Your task to perform on an android device: open app "Microsoft Authenticator" (install if not already installed) and go to login screen Image 0: 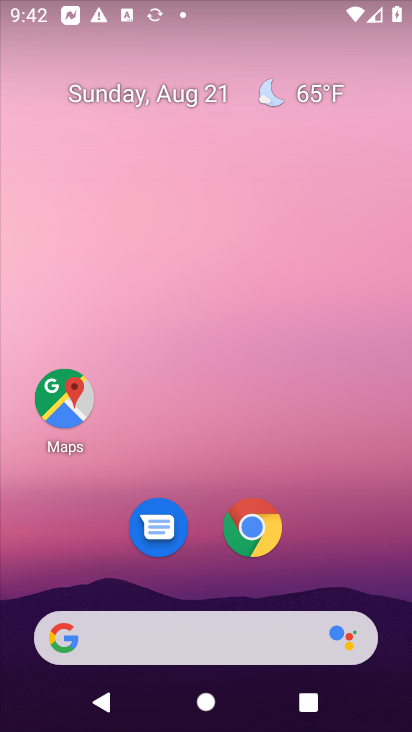
Step 0: drag from (196, 578) to (160, 0)
Your task to perform on an android device: open app "Microsoft Authenticator" (install if not already installed) and go to login screen Image 1: 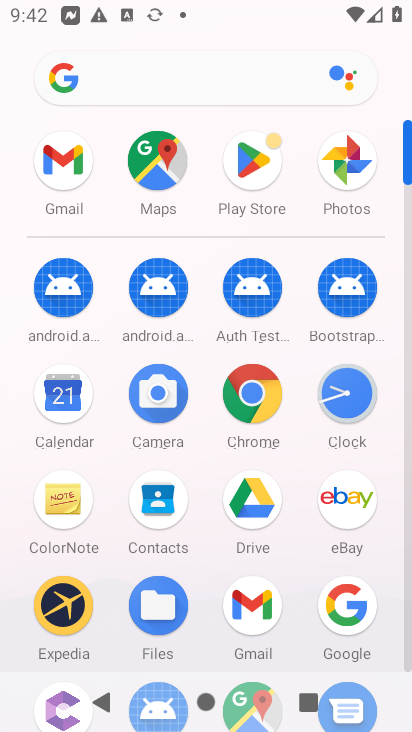
Step 1: click (265, 180)
Your task to perform on an android device: open app "Microsoft Authenticator" (install if not already installed) and go to login screen Image 2: 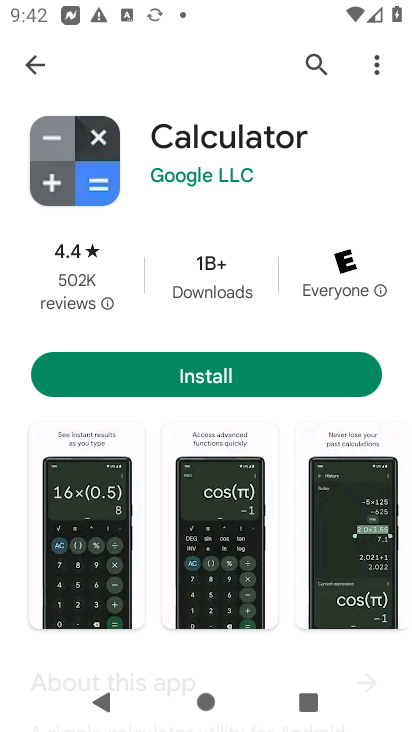
Step 2: click (27, 61)
Your task to perform on an android device: open app "Microsoft Authenticator" (install if not already installed) and go to login screen Image 3: 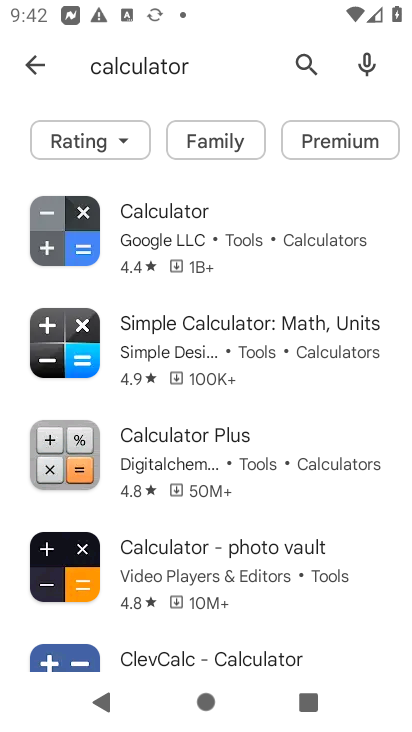
Step 3: click (183, 57)
Your task to perform on an android device: open app "Microsoft Authenticator" (install if not already installed) and go to login screen Image 4: 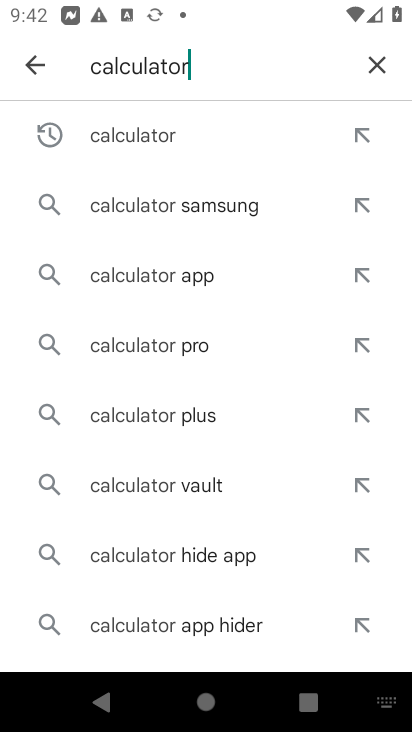
Step 4: click (380, 62)
Your task to perform on an android device: open app "Microsoft Authenticator" (install if not already installed) and go to login screen Image 5: 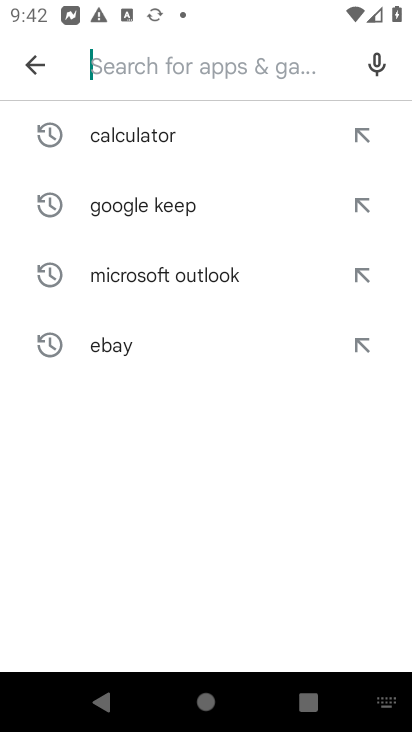
Step 5: type "microsoft Authenticator"
Your task to perform on an android device: open app "Microsoft Authenticator" (install if not already installed) and go to login screen Image 6: 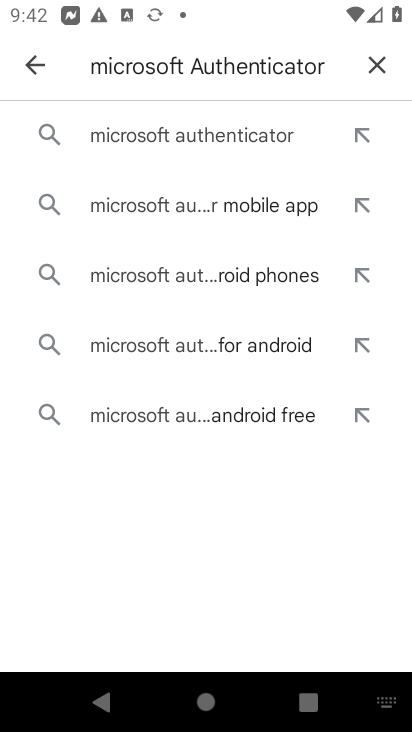
Step 6: click (221, 122)
Your task to perform on an android device: open app "Microsoft Authenticator" (install if not already installed) and go to login screen Image 7: 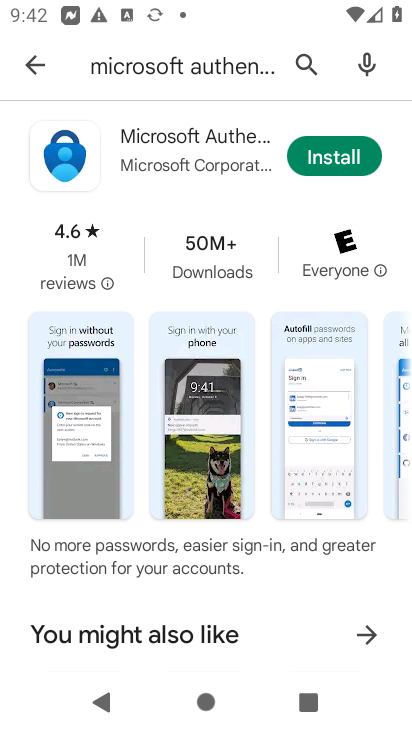
Step 7: click (350, 157)
Your task to perform on an android device: open app "Microsoft Authenticator" (install if not already installed) and go to login screen Image 8: 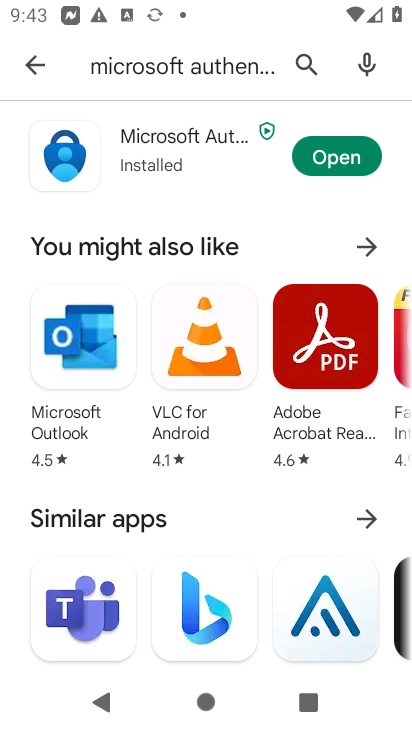
Step 8: click (349, 169)
Your task to perform on an android device: open app "Microsoft Authenticator" (install if not already installed) and go to login screen Image 9: 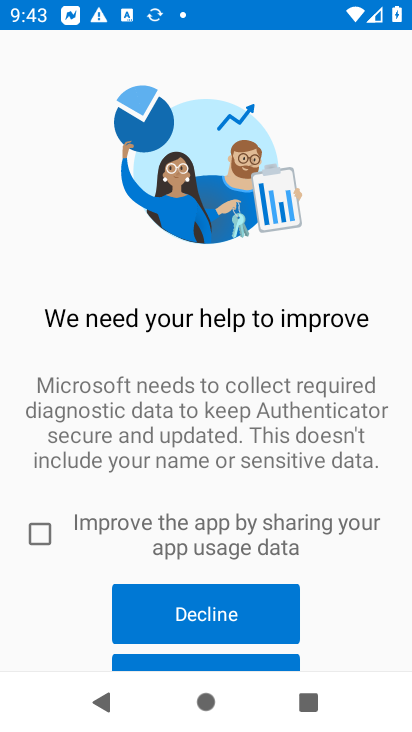
Step 9: click (45, 525)
Your task to perform on an android device: open app "Microsoft Authenticator" (install if not already installed) and go to login screen Image 10: 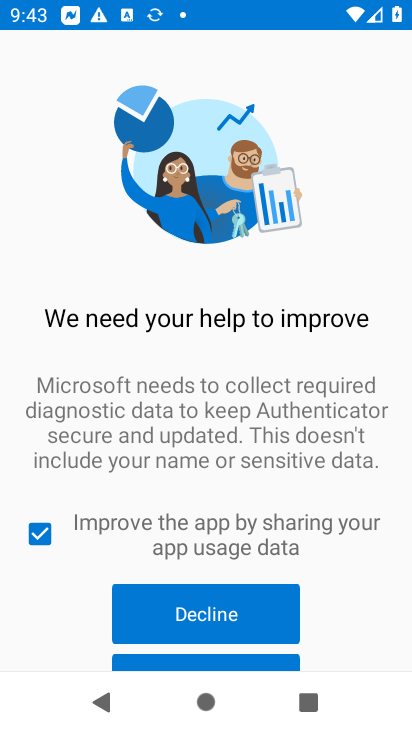
Step 10: drag from (198, 576) to (236, 133)
Your task to perform on an android device: open app "Microsoft Authenticator" (install if not already installed) and go to login screen Image 11: 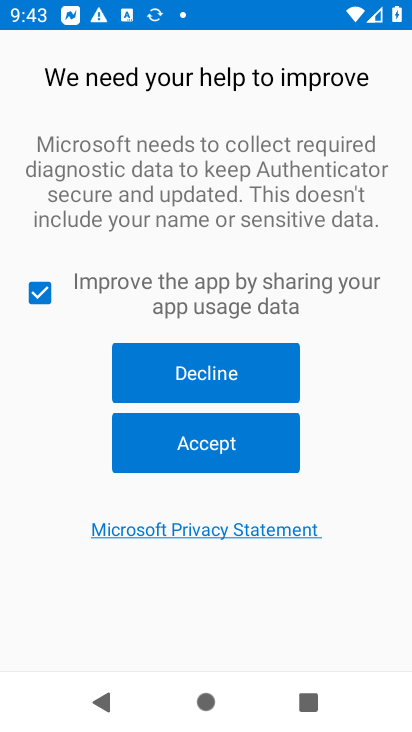
Step 11: click (228, 453)
Your task to perform on an android device: open app "Microsoft Authenticator" (install if not already installed) and go to login screen Image 12: 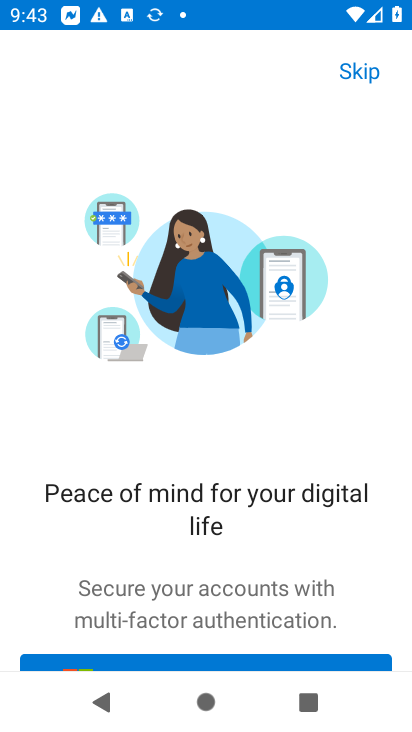
Step 12: drag from (221, 540) to (278, 23)
Your task to perform on an android device: open app "Microsoft Authenticator" (install if not already installed) and go to login screen Image 13: 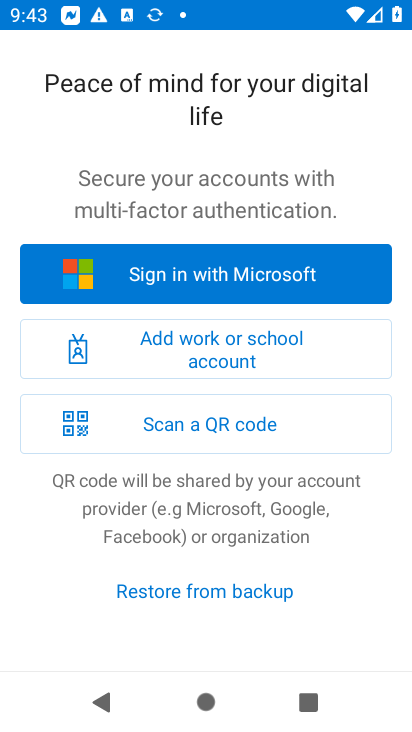
Step 13: click (283, 273)
Your task to perform on an android device: open app "Microsoft Authenticator" (install if not already installed) and go to login screen Image 14: 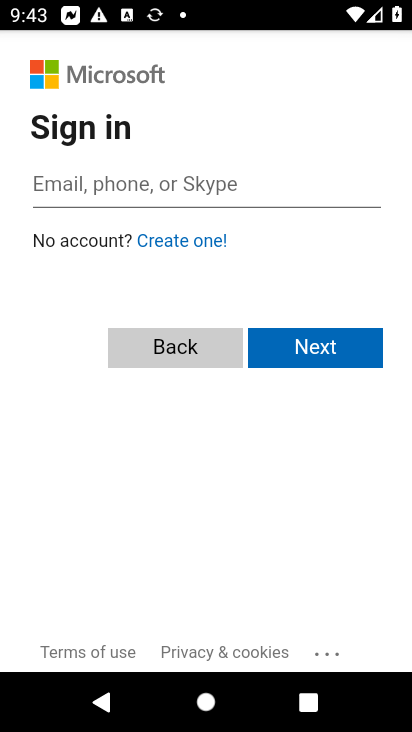
Step 14: task complete